Your task to perform on an android device: star an email in the gmail app Image 0: 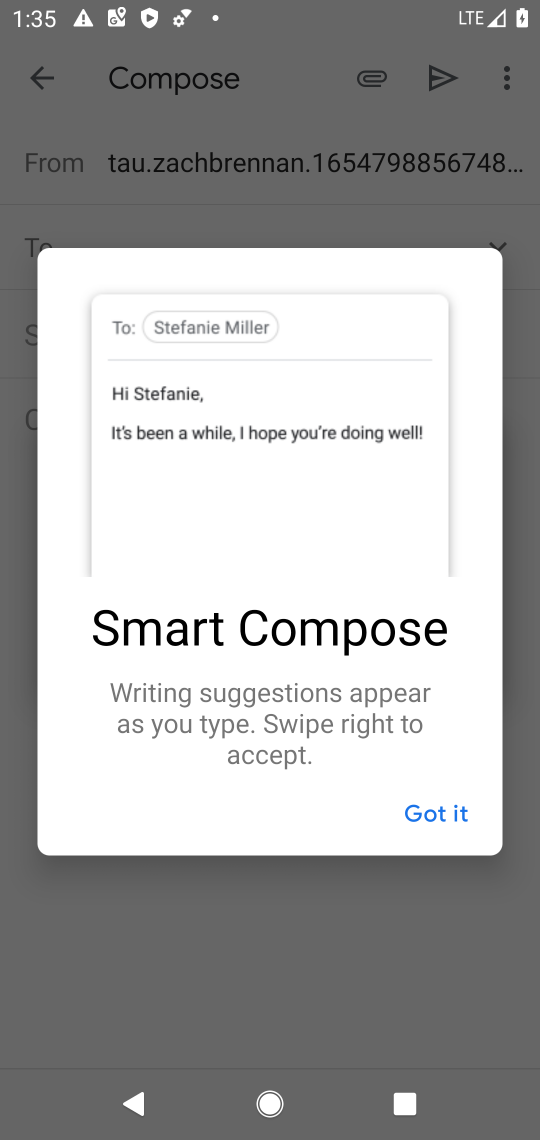
Step 0: press home button
Your task to perform on an android device: star an email in the gmail app Image 1: 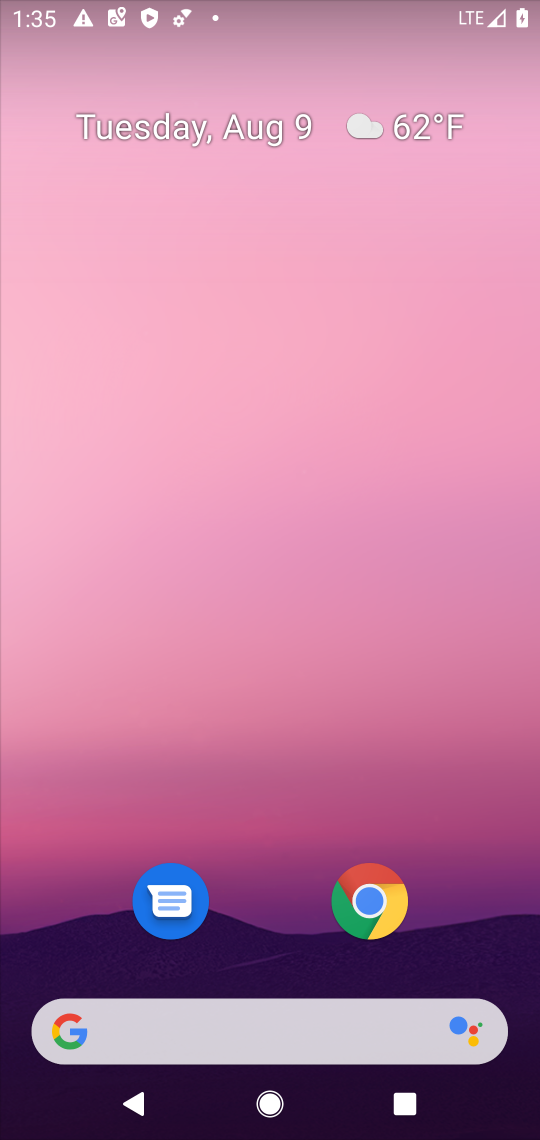
Step 1: drag from (521, 1001) to (479, 162)
Your task to perform on an android device: star an email in the gmail app Image 2: 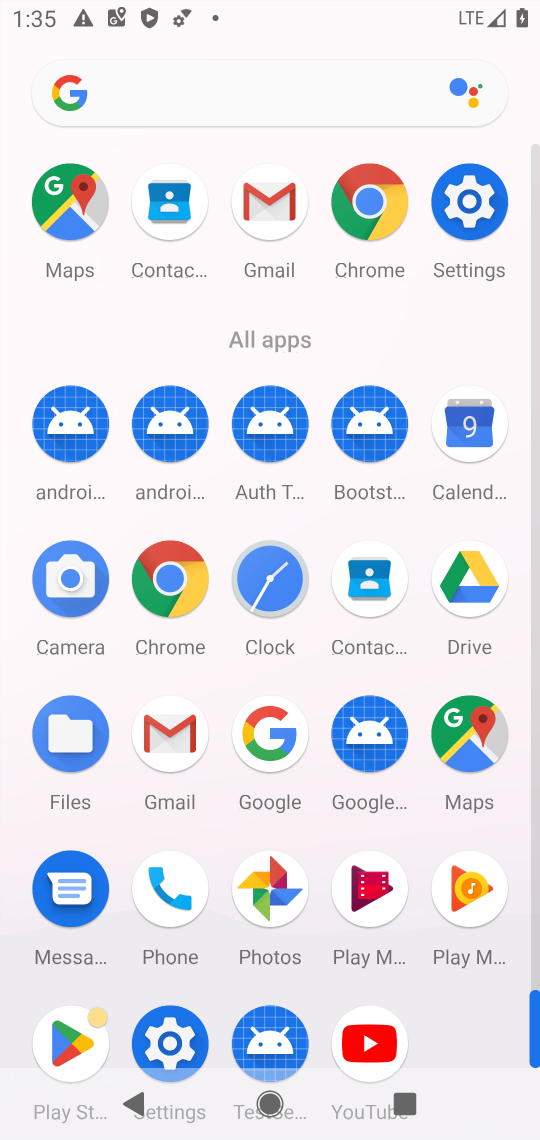
Step 2: click (167, 734)
Your task to perform on an android device: star an email in the gmail app Image 3: 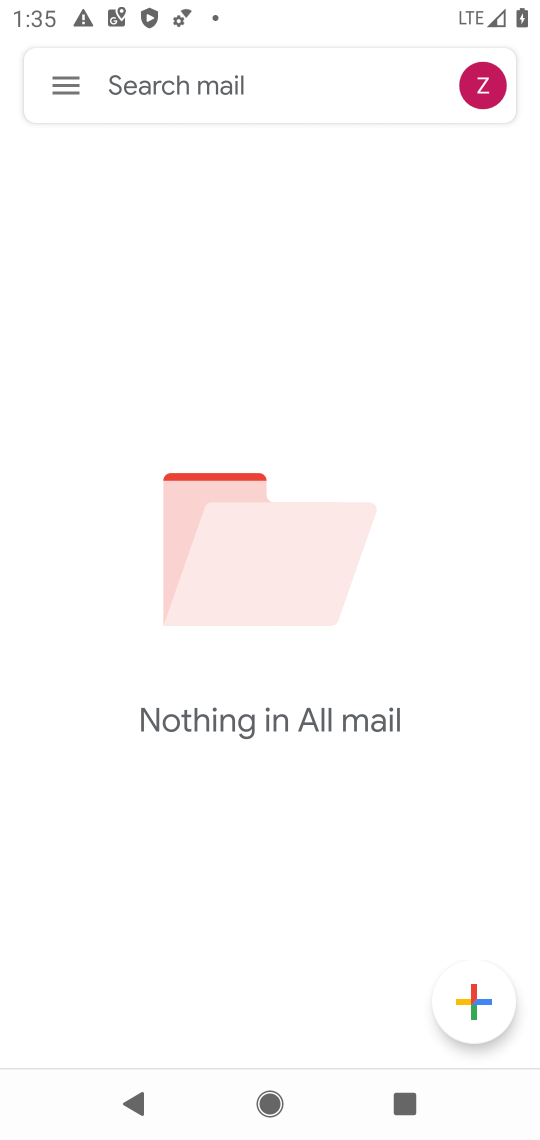
Step 3: click (63, 96)
Your task to perform on an android device: star an email in the gmail app Image 4: 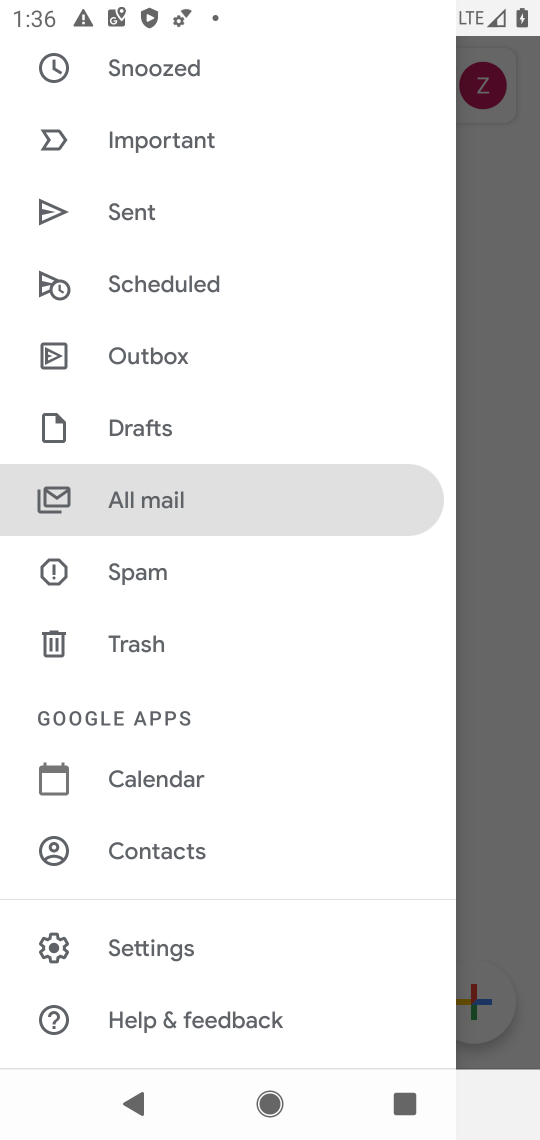
Step 4: click (224, 491)
Your task to perform on an android device: star an email in the gmail app Image 5: 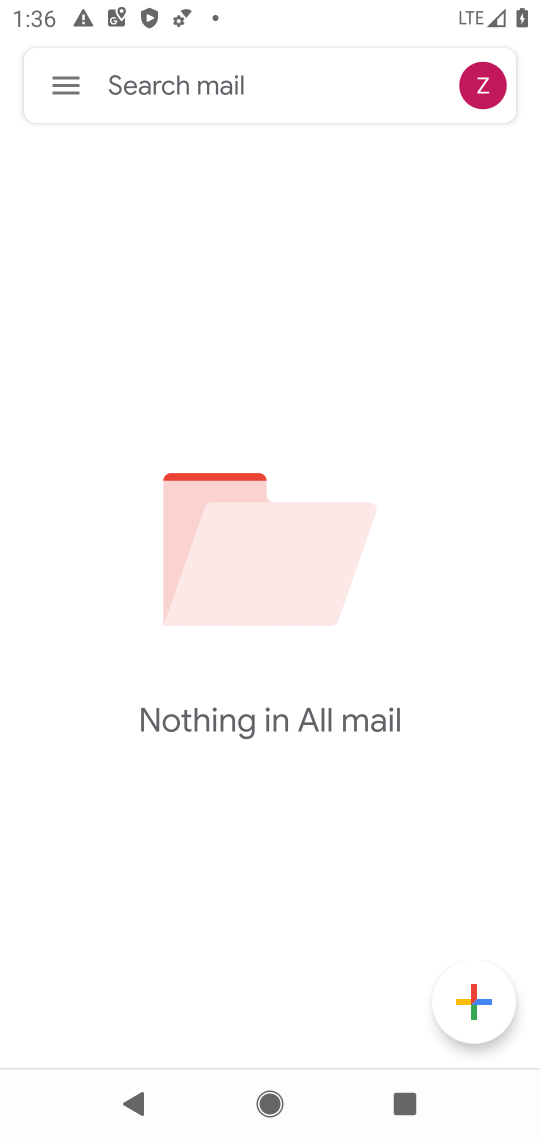
Step 5: task complete